Your task to perform on an android device: Open Chrome and go to settings Image 0: 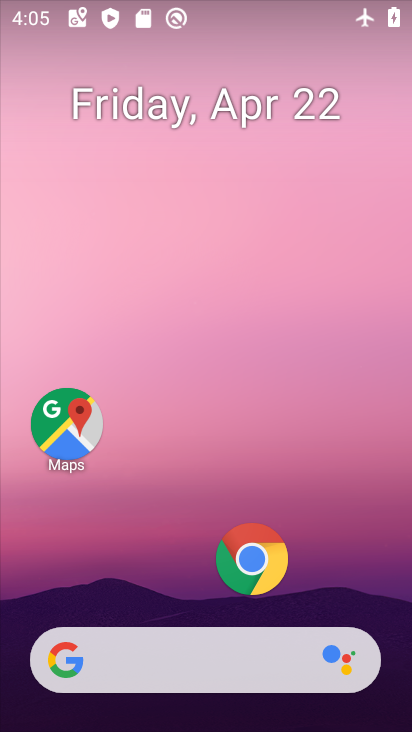
Step 0: click (240, 551)
Your task to perform on an android device: Open Chrome and go to settings Image 1: 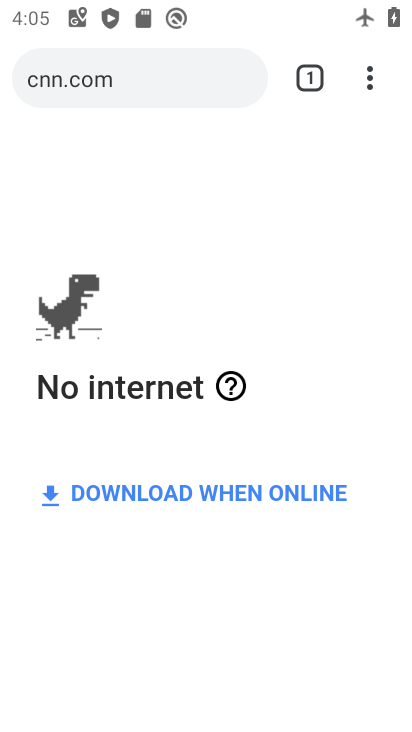
Step 1: click (378, 83)
Your task to perform on an android device: Open Chrome and go to settings Image 2: 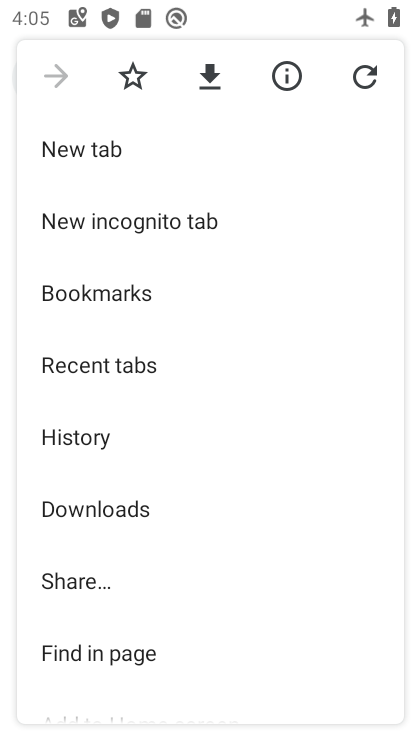
Step 2: drag from (84, 617) to (150, 174)
Your task to perform on an android device: Open Chrome and go to settings Image 3: 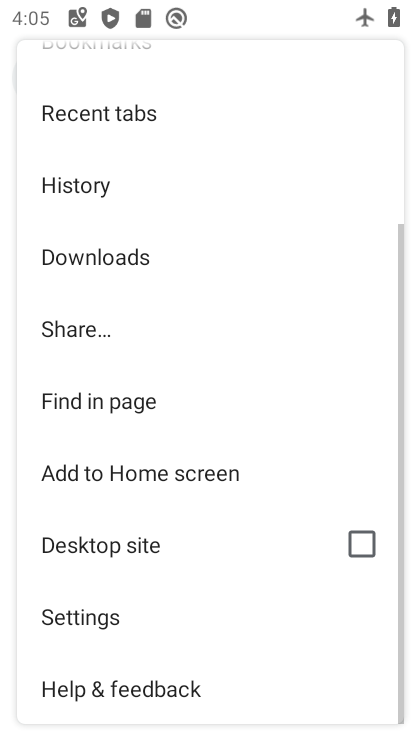
Step 3: click (83, 626)
Your task to perform on an android device: Open Chrome and go to settings Image 4: 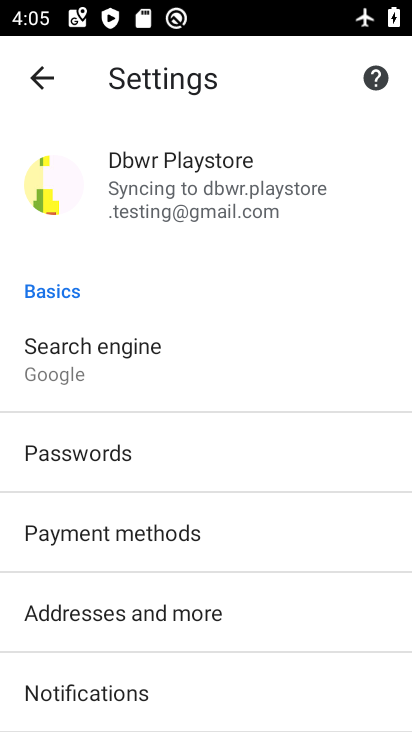
Step 4: task complete